Your task to perform on an android device: Open notification settings Image 0: 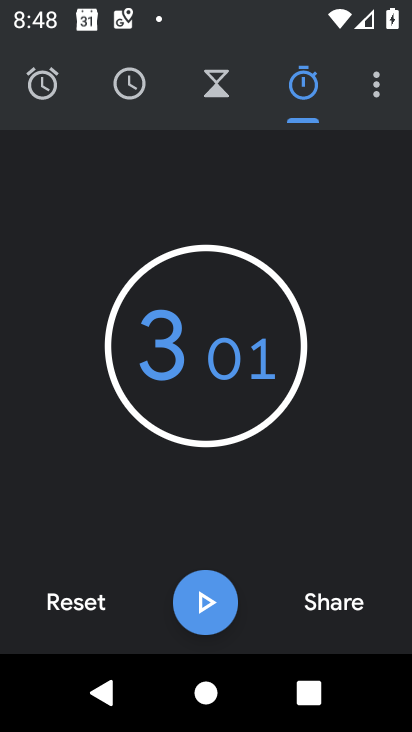
Step 0: press home button
Your task to perform on an android device: Open notification settings Image 1: 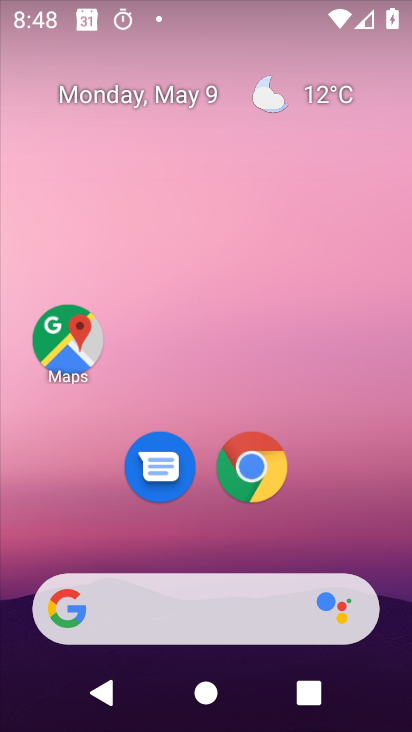
Step 1: drag from (336, 539) to (338, 6)
Your task to perform on an android device: Open notification settings Image 2: 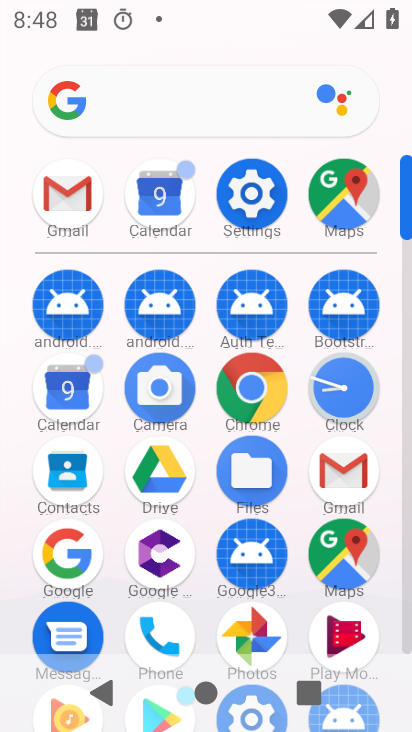
Step 2: click (268, 198)
Your task to perform on an android device: Open notification settings Image 3: 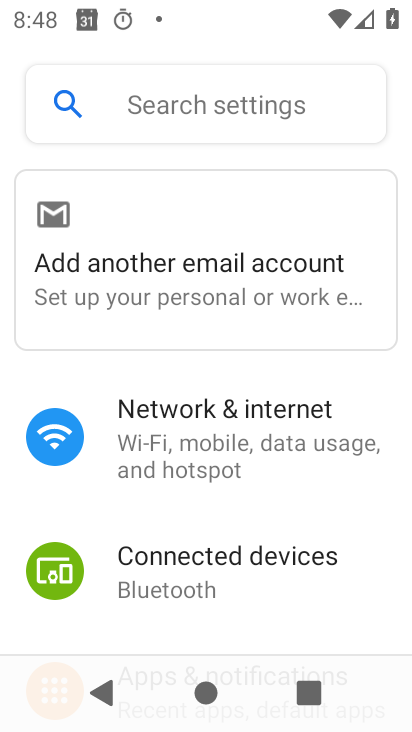
Step 3: drag from (360, 511) to (366, 189)
Your task to perform on an android device: Open notification settings Image 4: 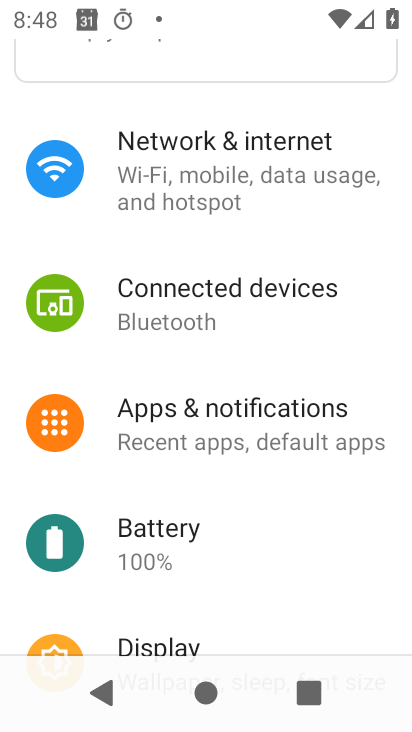
Step 4: click (291, 429)
Your task to perform on an android device: Open notification settings Image 5: 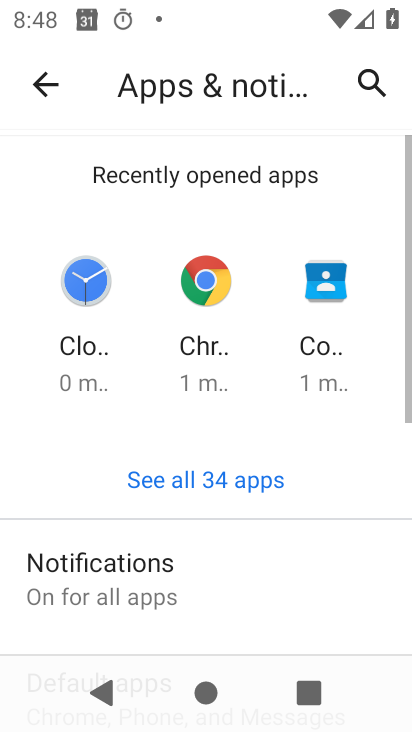
Step 5: task complete